Your task to perform on an android device: Open calendar and show me the third week of next month Image 0: 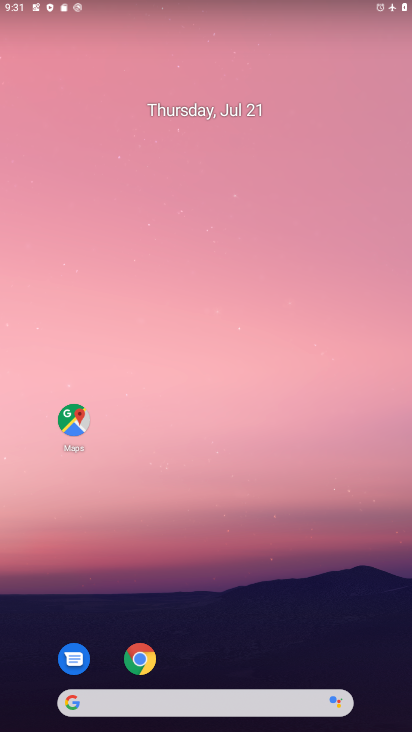
Step 0: click (134, 266)
Your task to perform on an android device: Open calendar and show me the third week of next month Image 1: 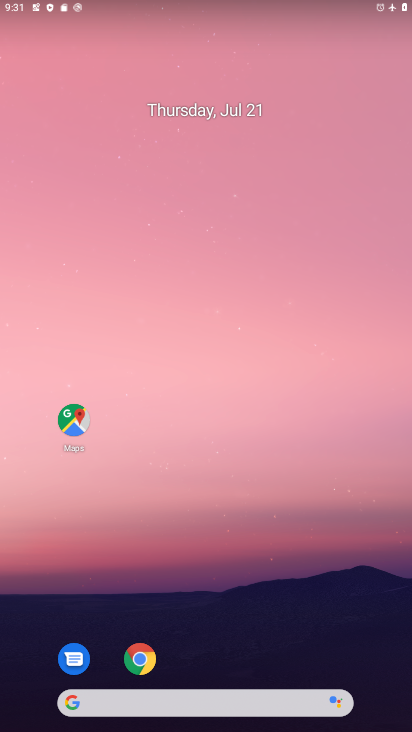
Step 1: drag from (285, 683) to (246, 3)
Your task to perform on an android device: Open calendar and show me the third week of next month Image 2: 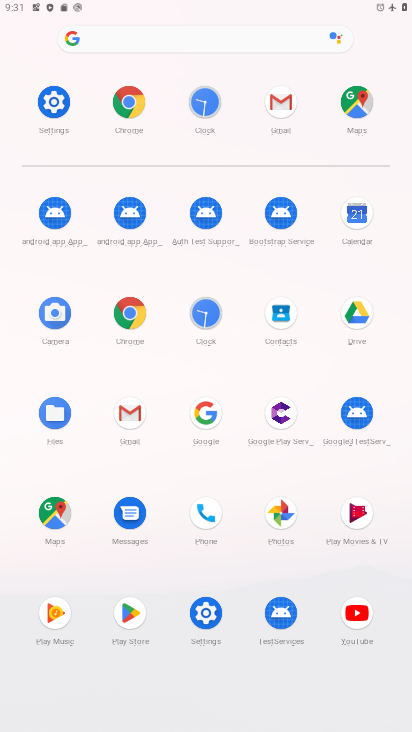
Step 2: click (350, 216)
Your task to perform on an android device: Open calendar and show me the third week of next month Image 3: 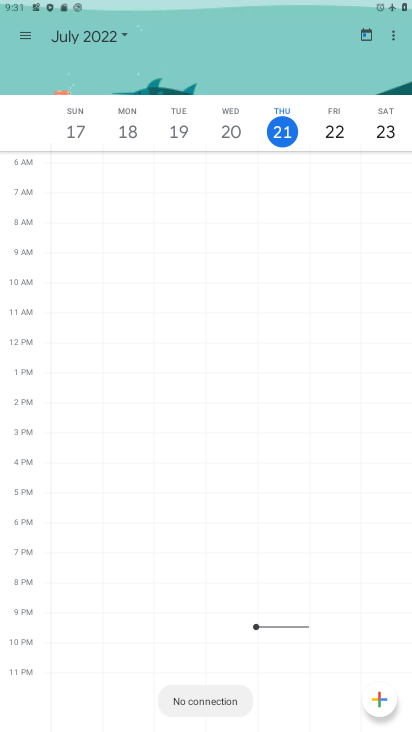
Step 3: task complete